Your task to perform on an android device: Open Google Maps and go to "Timeline" Image 0: 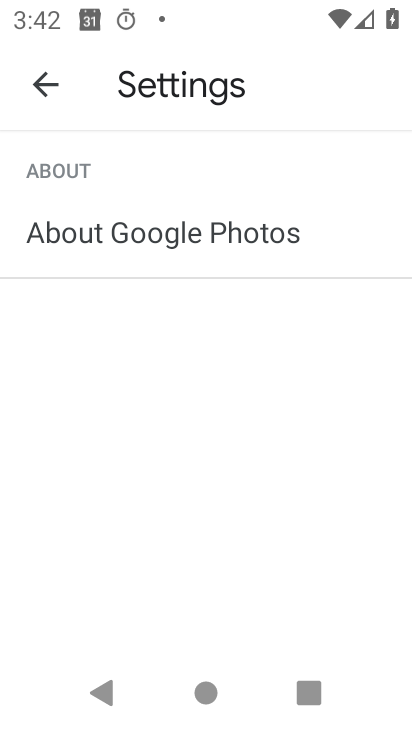
Step 0: press home button
Your task to perform on an android device: Open Google Maps and go to "Timeline" Image 1: 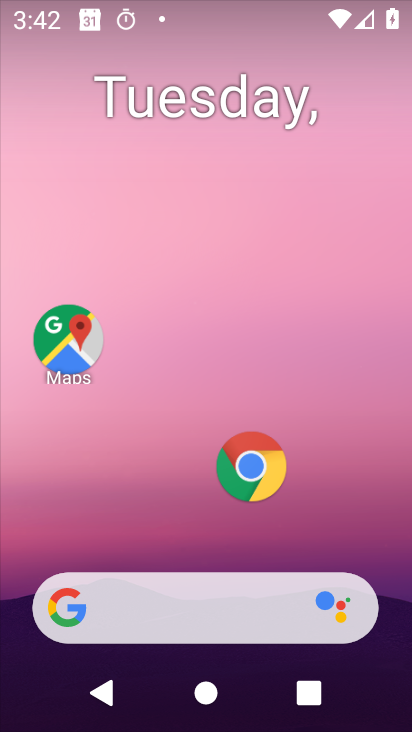
Step 1: click (65, 351)
Your task to perform on an android device: Open Google Maps and go to "Timeline" Image 2: 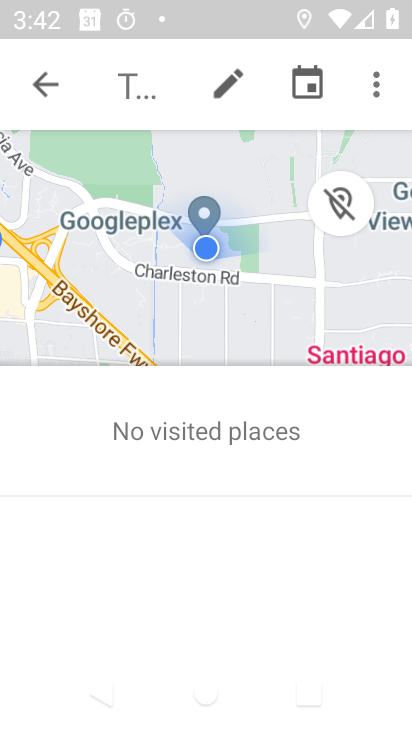
Step 2: click (59, 82)
Your task to perform on an android device: Open Google Maps and go to "Timeline" Image 3: 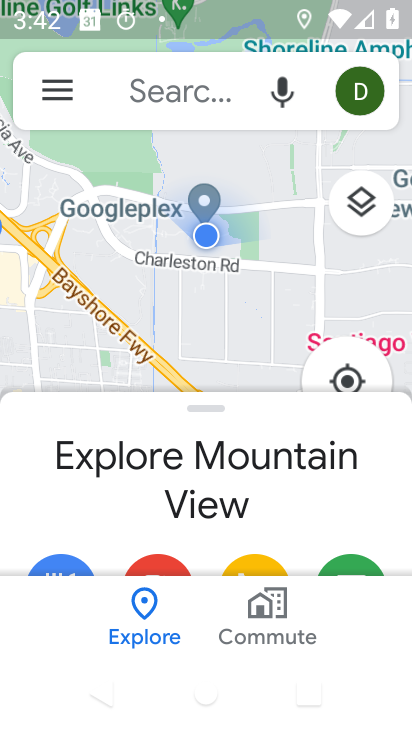
Step 3: click (29, 87)
Your task to perform on an android device: Open Google Maps and go to "Timeline" Image 4: 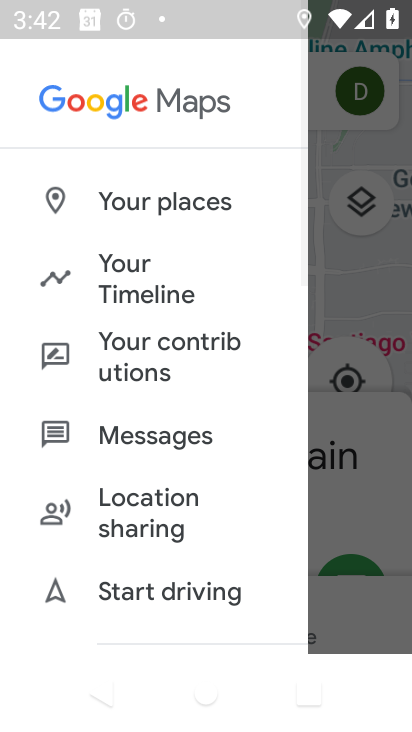
Step 4: click (140, 269)
Your task to perform on an android device: Open Google Maps and go to "Timeline" Image 5: 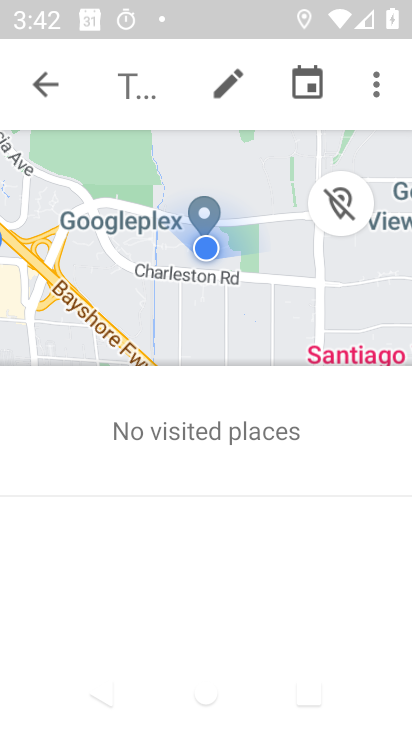
Step 5: task complete